Your task to perform on an android device: Toggle the flashlight Image 0: 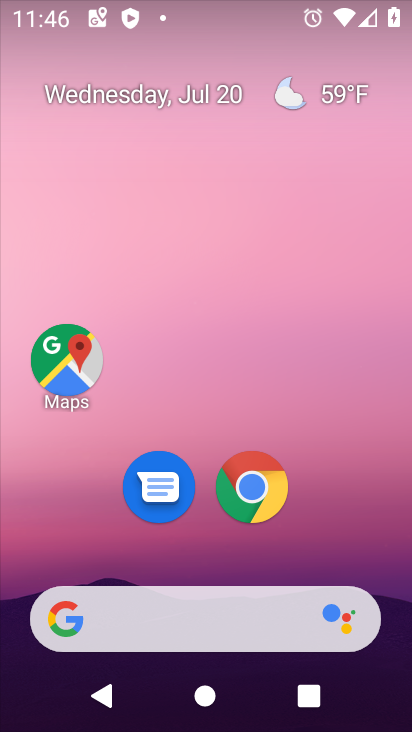
Step 0: click (332, 549)
Your task to perform on an android device: Toggle the flashlight Image 1: 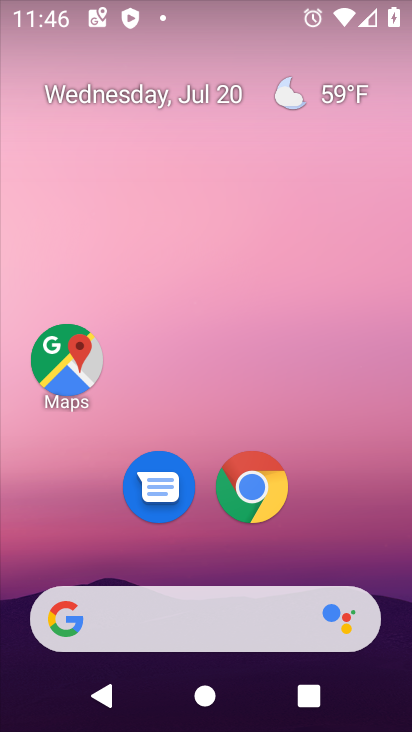
Step 1: drag from (262, 6) to (265, 438)
Your task to perform on an android device: Toggle the flashlight Image 2: 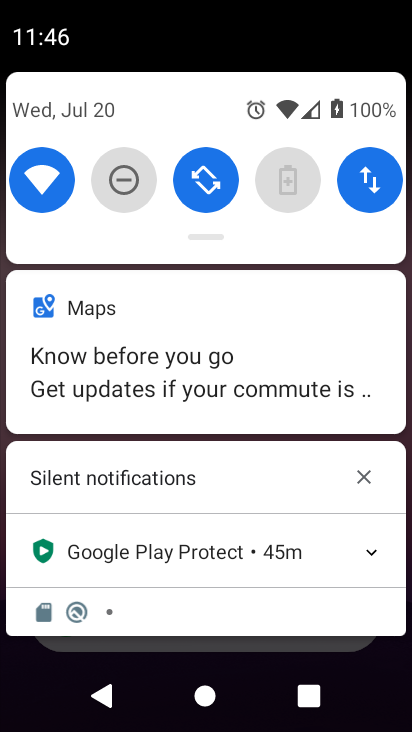
Step 2: drag from (159, 123) to (165, 408)
Your task to perform on an android device: Toggle the flashlight Image 3: 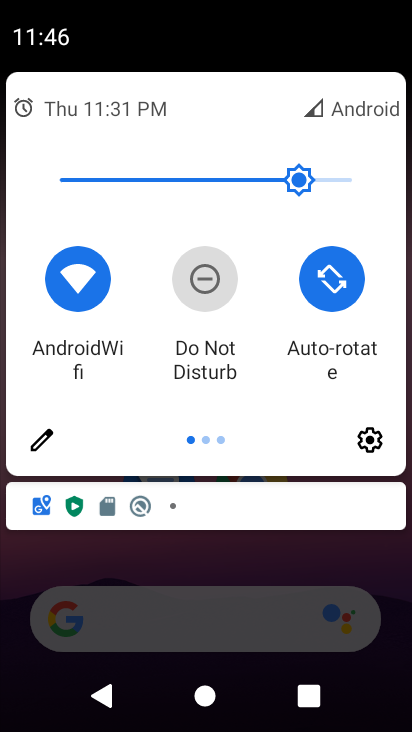
Step 3: click (50, 453)
Your task to perform on an android device: Toggle the flashlight Image 4: 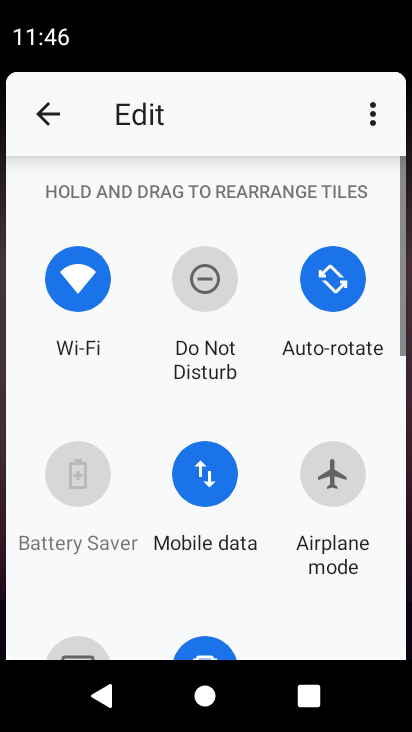
Step 4: task complete